Your task to perform on an android device: check android version Image 0: 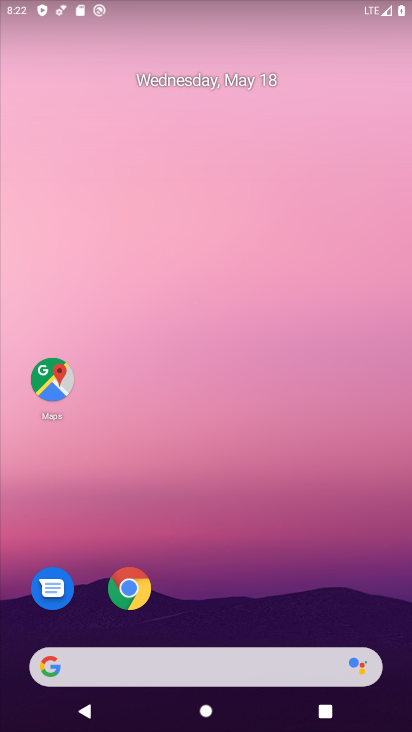
Step 0: drag from (298, 637) to (266, 16)
Your task to perform on an android device: check android version Image 1: 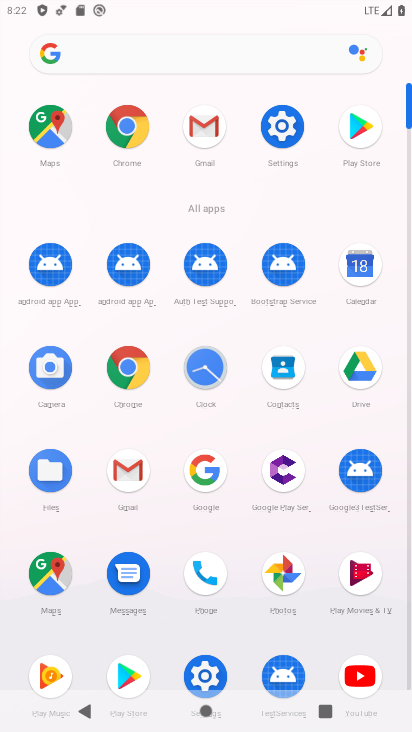
Step 1: click (288, 120)
Your task to perform on an android device: check android version Image 2: 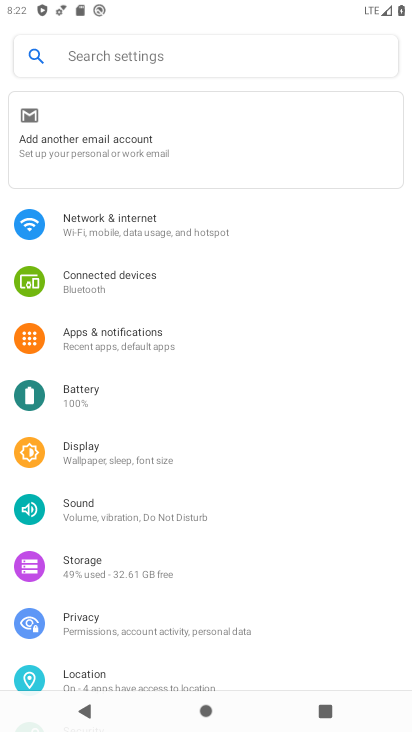
Step 2: drag from (283, 635) to (263, 223)
Your task to perform on an android device: check android version Image 3: 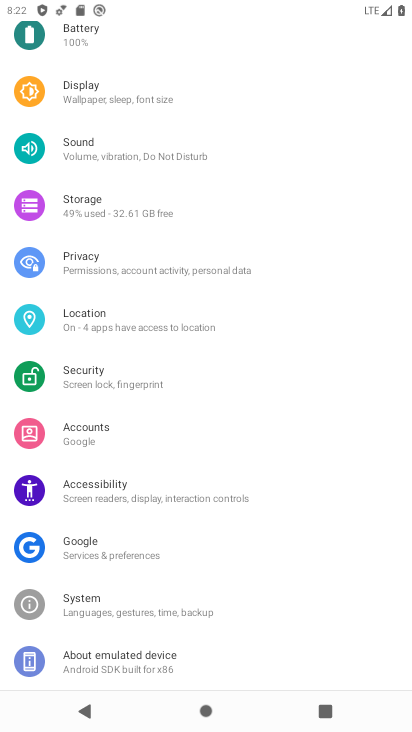
Step 3: click (131, 662)
Your task to perform on an android device: check android version Image 4: 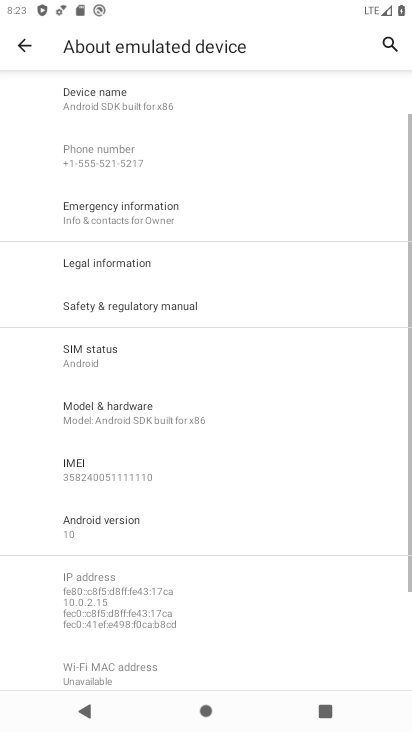
Step 4: click (115, 522)
Your task to perform on an android device: check android version Image 5: 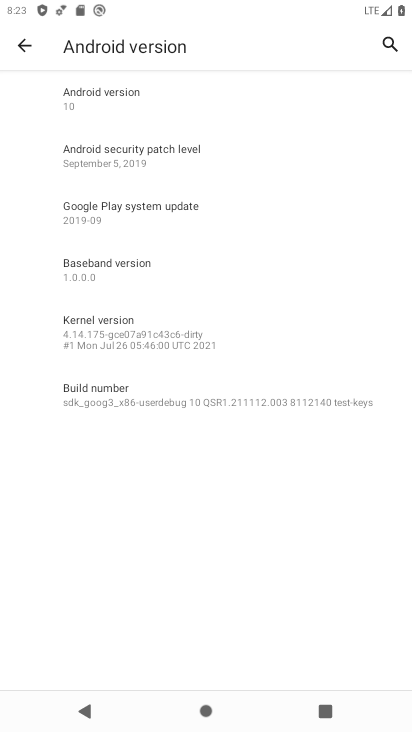
Step 5: task complete